Your task to perform on an android device: turn on translation in the chrome app Image 0: 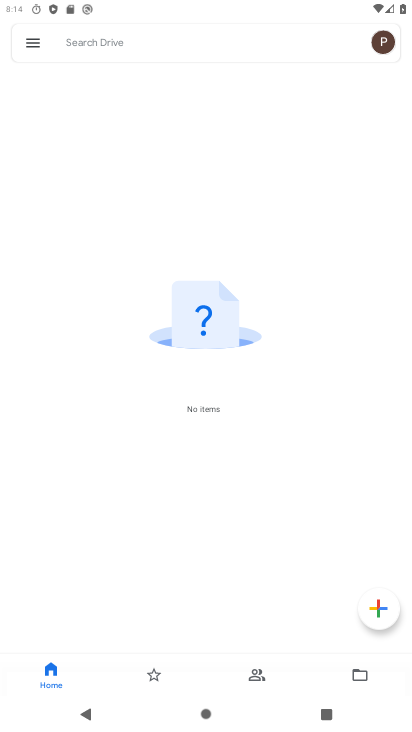
Step 0: press home button
Your task to perform on an android device: turn on translation in the chrome app Image 1: 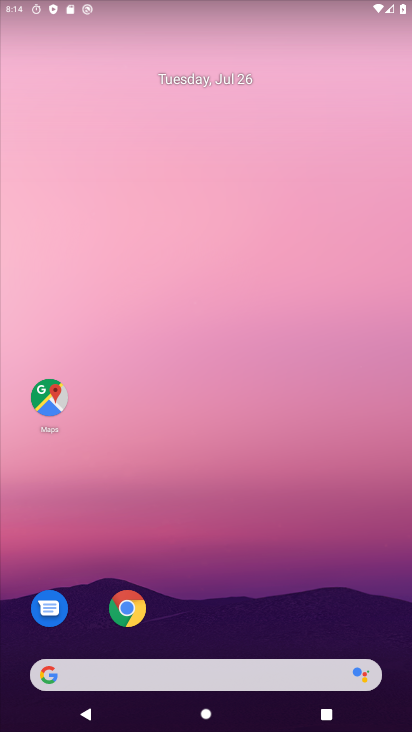
Step 1: drag from (265, 669) to (329, 59)
Your task to perform on an android device: turn on translation in the chrome app Image 2: 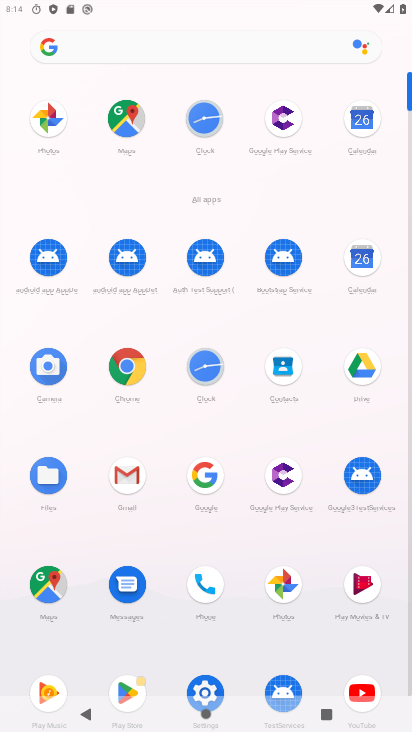
Step 2: click (122, 364)
Your task to perform on an android device: turn on translation in the chrome app Image 3: 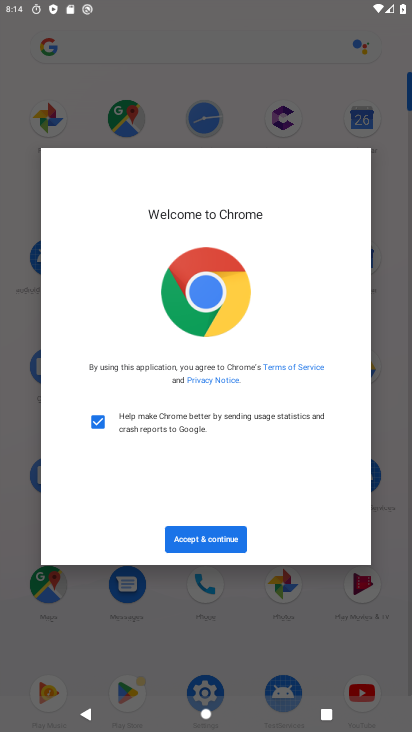
Step 3: click (219, 532)
Your task to perform on an android device: turn on translation in the chrome app Image 4: 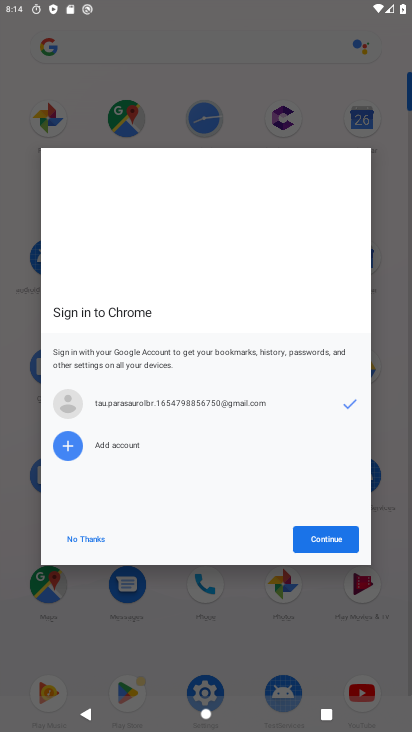
Step 4: click (84, 532)
Your task to perform on an android device: turn on translation in the chrome app Image 5: 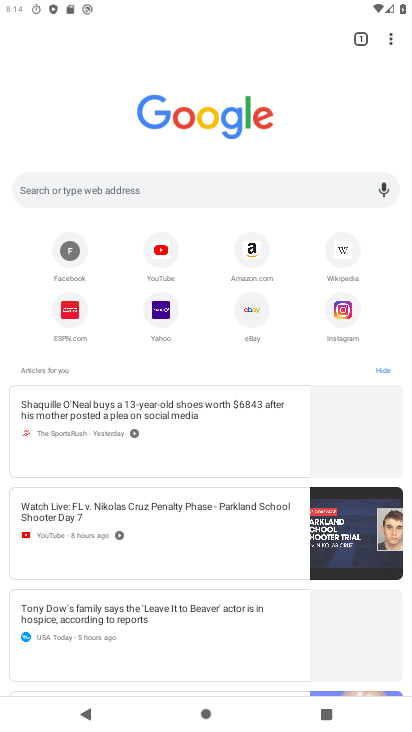
Step 5: click (395, 37)
Your task to perform on an android device: turn on translation in the chrome app Image 6: 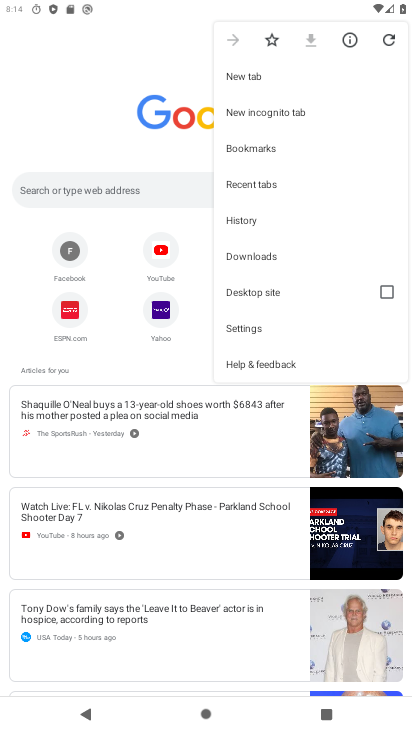
Step 6: click (265, 225)
Your task to perform on an android device: turn on translation in the chrome app Image 7: 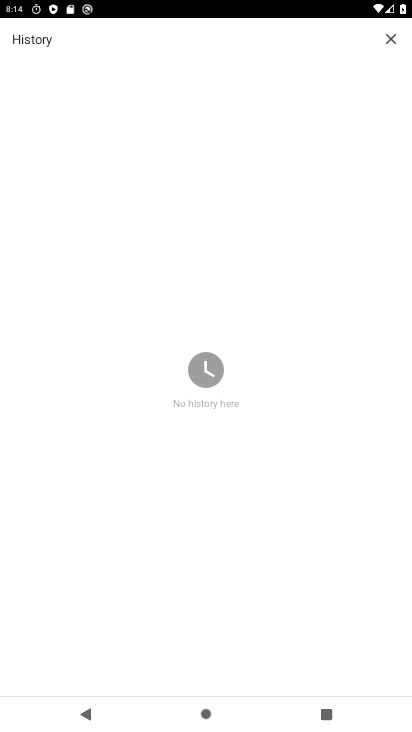
Step 7: press back button
Your task to perform on an android device: turn on translation in the chrome app Image 8: 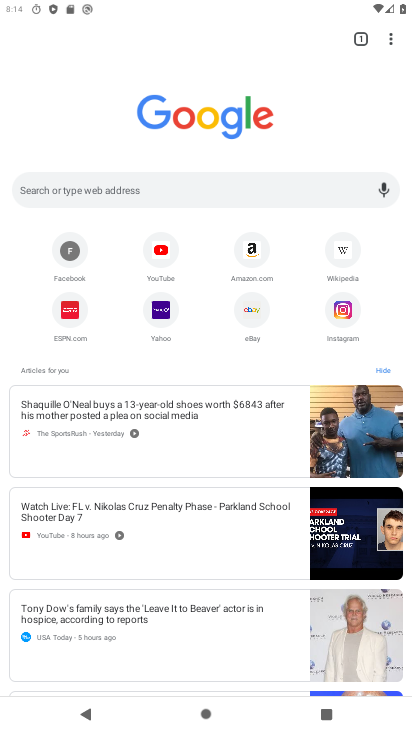
Step 8: click (387, 42)
Your task to perform on an android device: turn on translation in the chrome app Image 9: 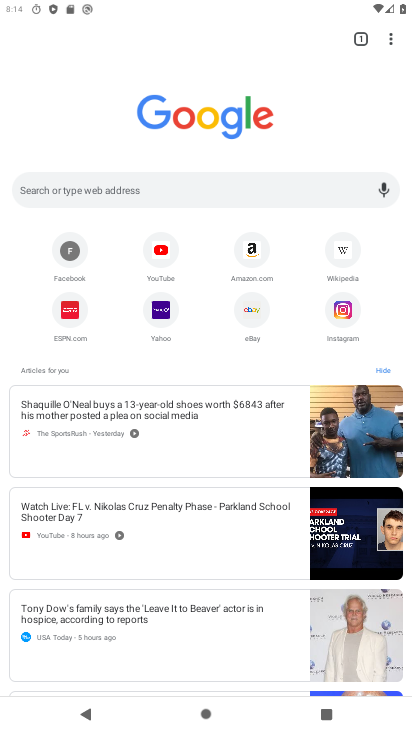
Step 9: click (392, 33)
Your task to perform on an android device: turn on translation in the chrome app Image 10: 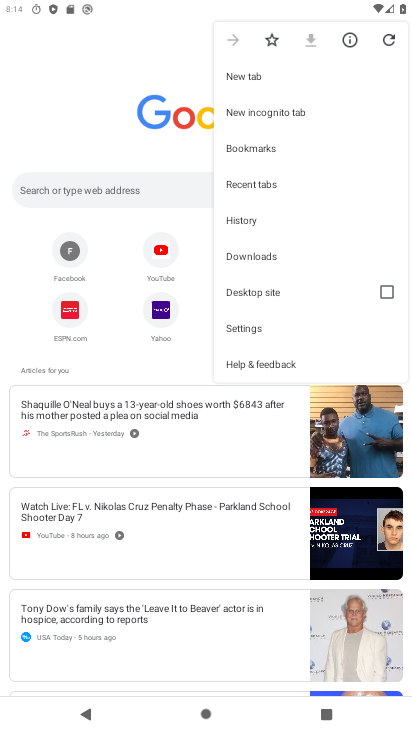
Step 10: click (248, 332)
Your task to perform on an android device: turn on translation in the chrome app Image 11: 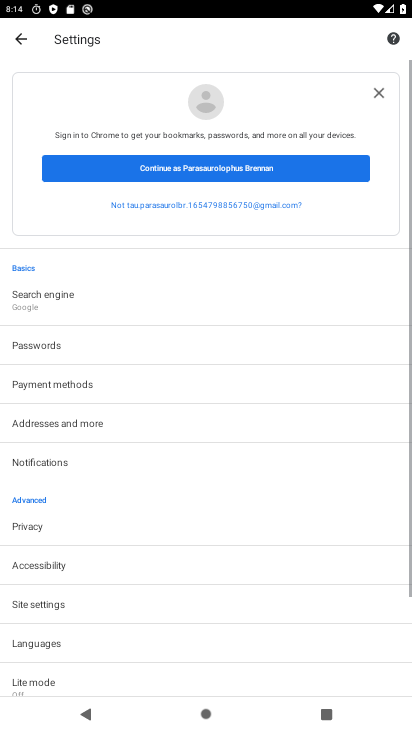
Step 11: drag from (141, 594) to (166, 248)
Your task to perform on an android device: turn on translation in the chrome app Image 12: 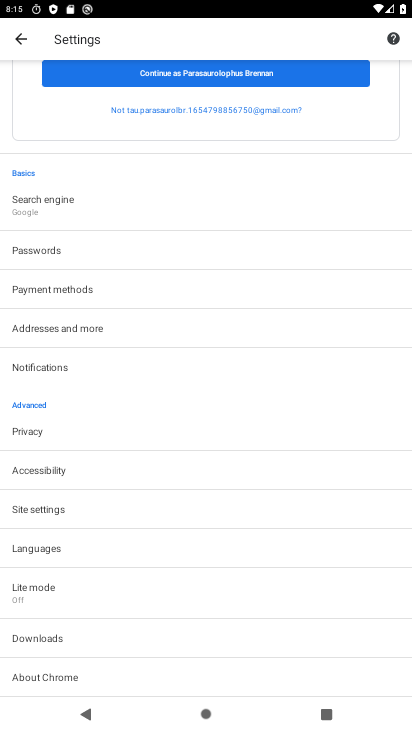
Step 12: click (40, 545)
Your task to perform on an android device: turn on translation in the chrome app Image 13: 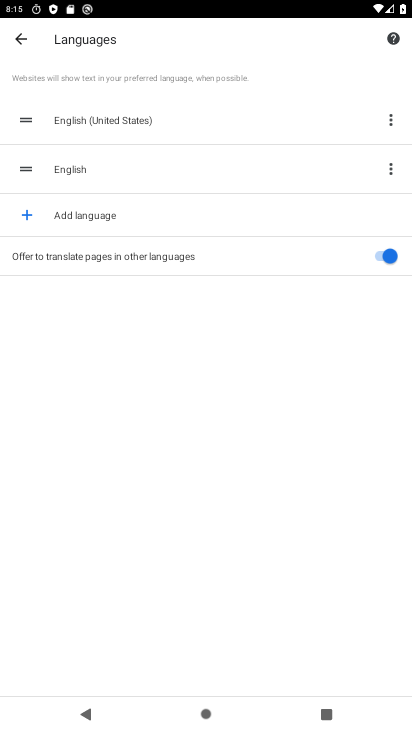
Step 13: click (388, 261)
Your task to perform on an android device: turn on translation in the chrome app Image 14: 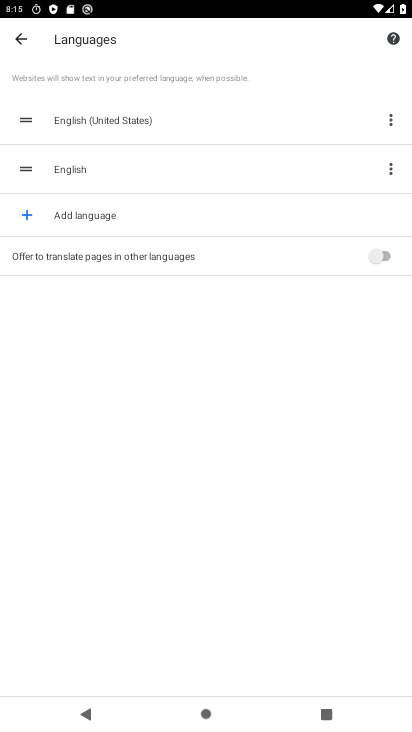
Step 14: task complete